Your task to perform on an android device: When is my next appointment? Image 0: 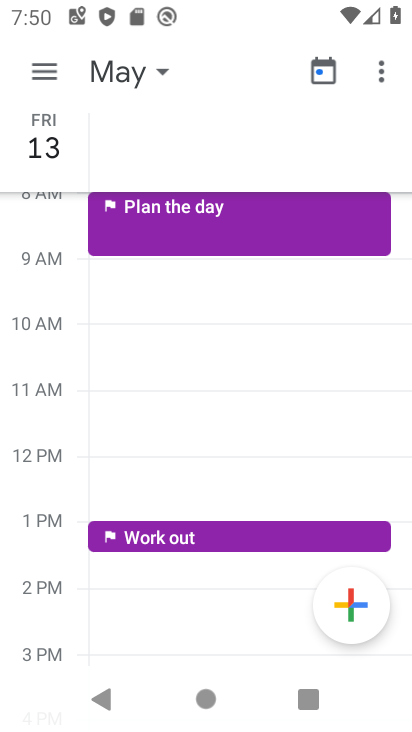
Step 0: press home button
Your task to perform on an android device: When is my next appointment? Image 1: 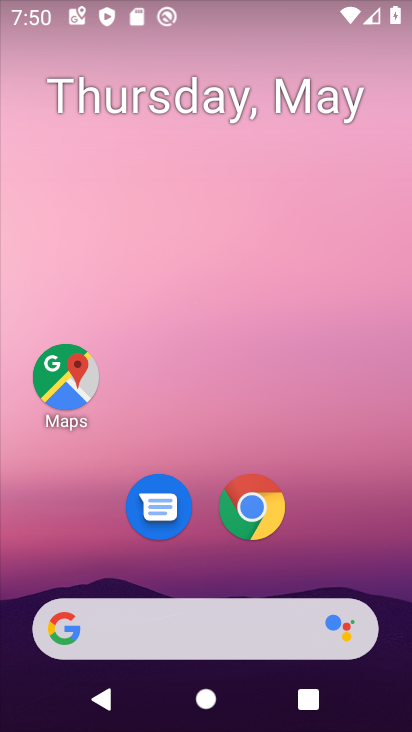
Step 1: drag from (269, 640) to (325, 286)
Your task to perform on an android device: When is my next appointment? Image 2: 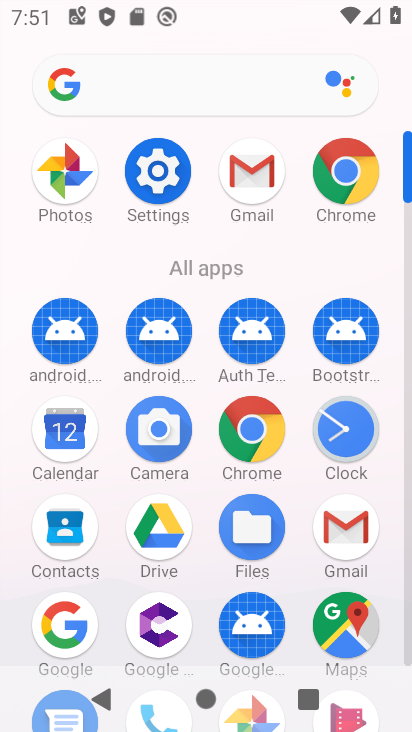
Step 2: click (53, 453)
Your task to perform on an android device: When is my next appointment? Image 3: 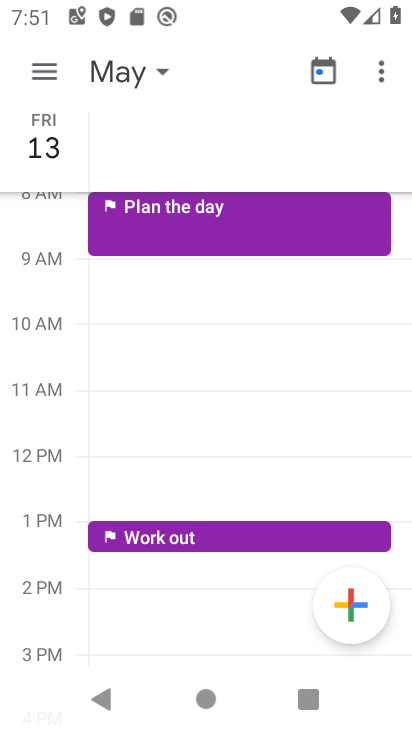
Step 3: click (59, 74)
Your task to perform on an android device: When is my next appointment? Image 4: 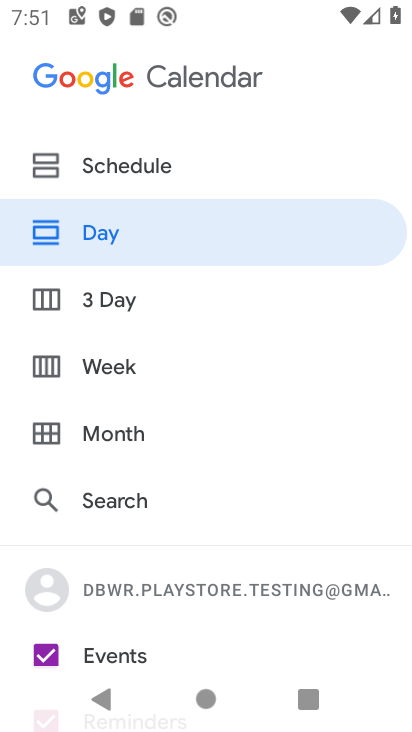
Step 4: click (99, 247)
Your task to perform on an android device: When is my next appointment? Image 5: 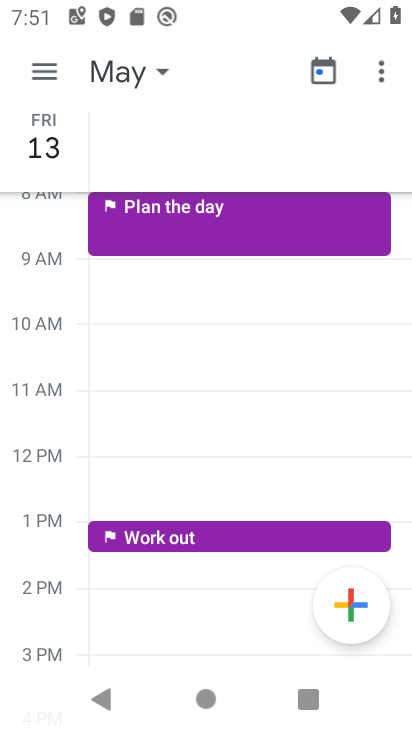
Step 5: click (52, 87)
Your task to perform on an android device: When is my next appointment? Image 6: 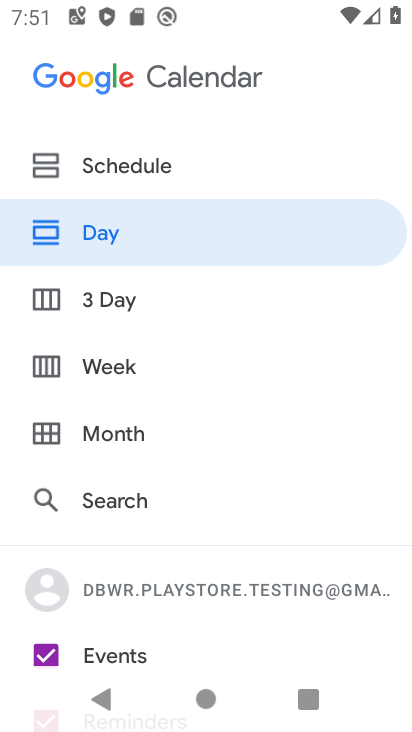
Step 6: click (114, 172)
Your task to perform on an android device: When is my next appointment? Image 7: 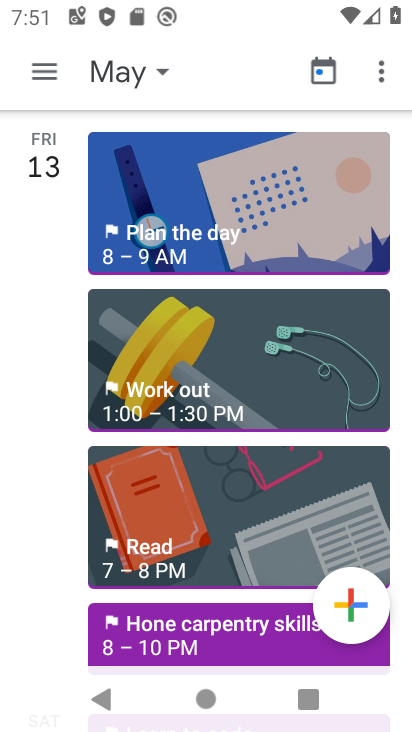
Step 7: task complete